Your task to perform on an android device: uninstall "Paramount+ | Peak Streaming" Image 0: 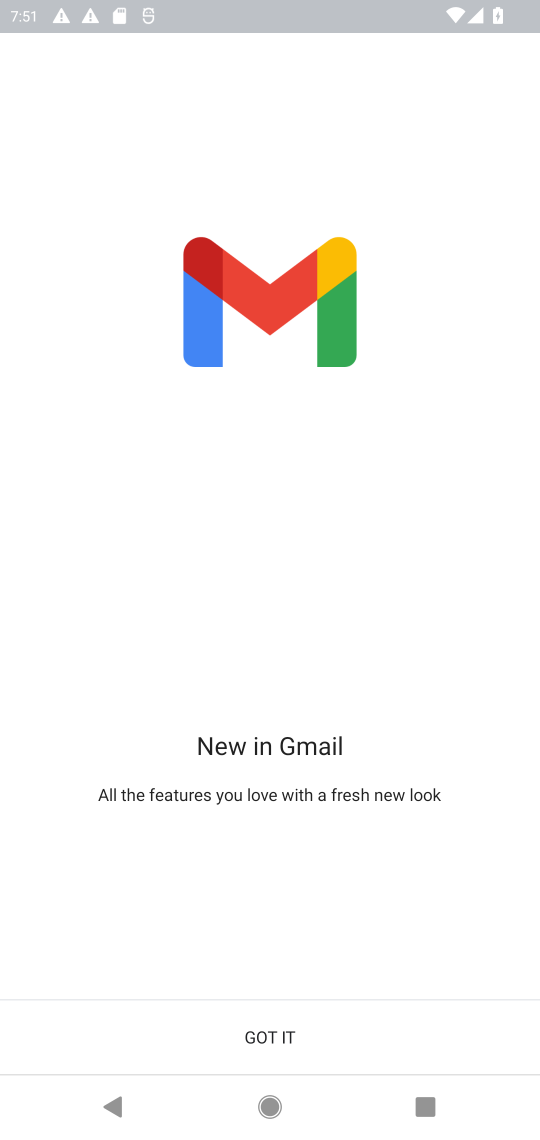
Step 0: press home button
Your task to perform on an android device: uninstall "Paramount+ | Peak Streaming" Image 1: 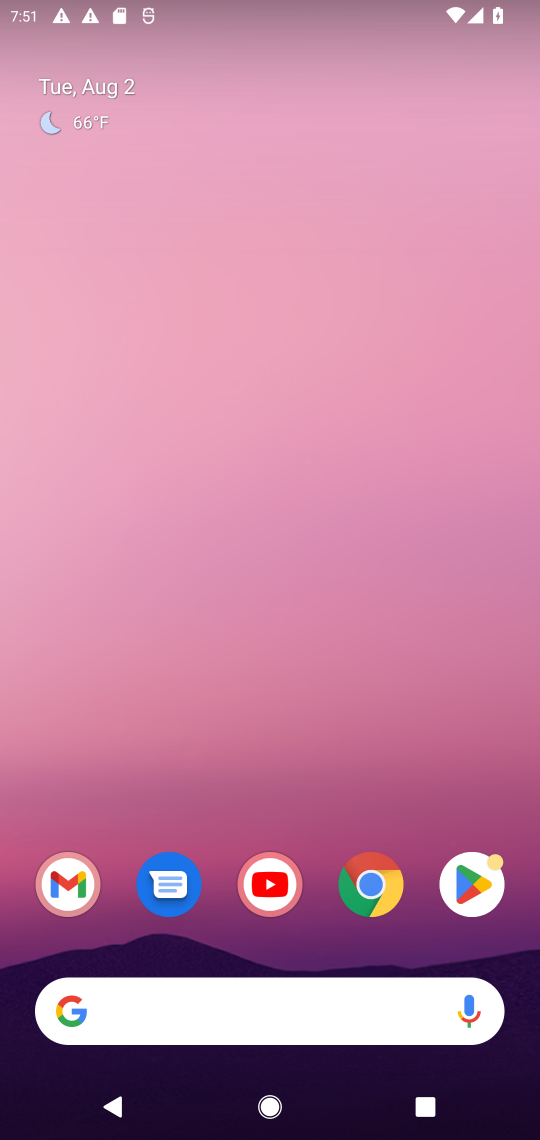
Step 1: click (473, 863)
Your task to perform on an android device: uninstall "Paramount+ | Peak Streaming" Image 2: 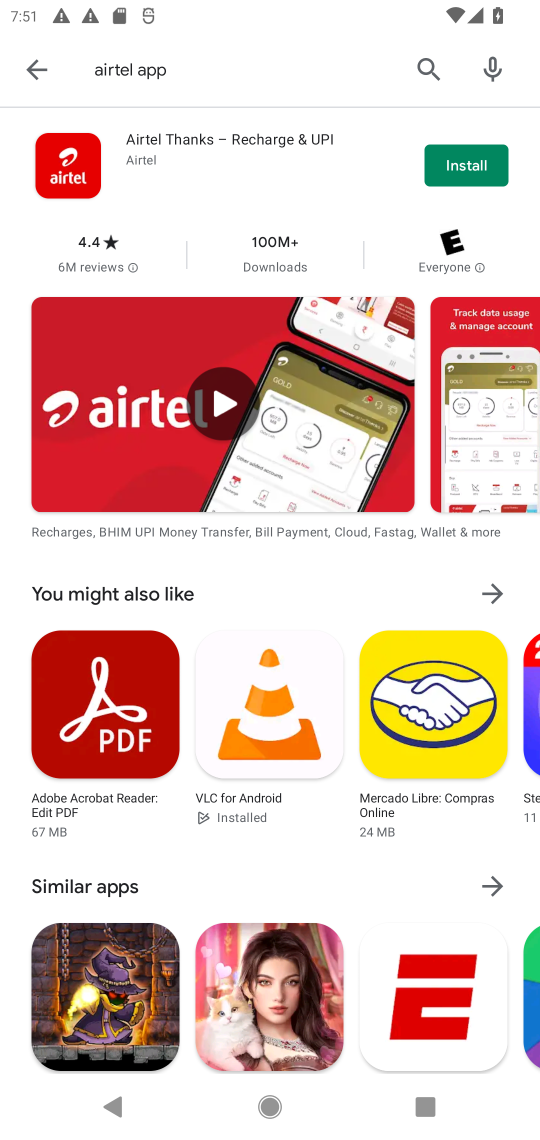
Step 2: click (412, 67)
Your task to perform on an android device: uninstall "Paramount+ | Peak Streaming" Image 3: 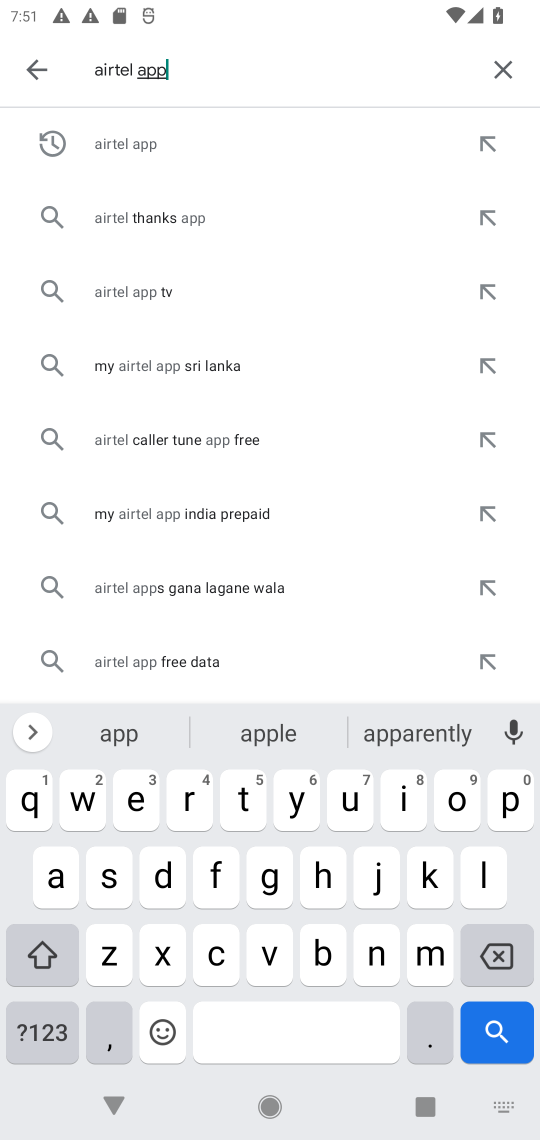
Step 3: click (500, 62)
Your task to perform on an android device: uninstall "Paramount+ | Peak Streaming" Image 4: 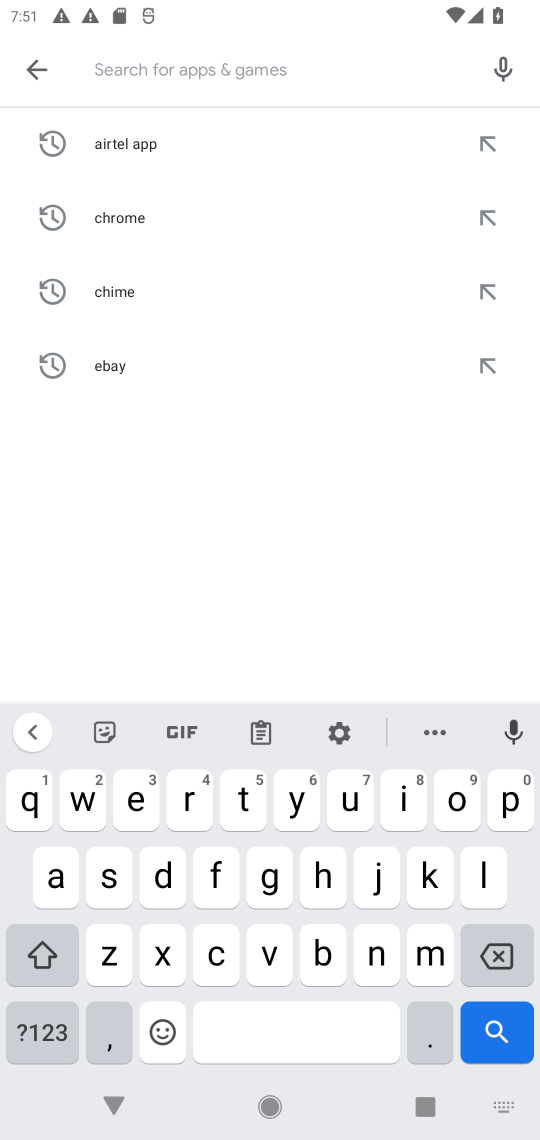
Step 4: click (504, 787)
Your task to perform on an android device: uninstall "Paramount+ | Peak Streaming" Image 5: 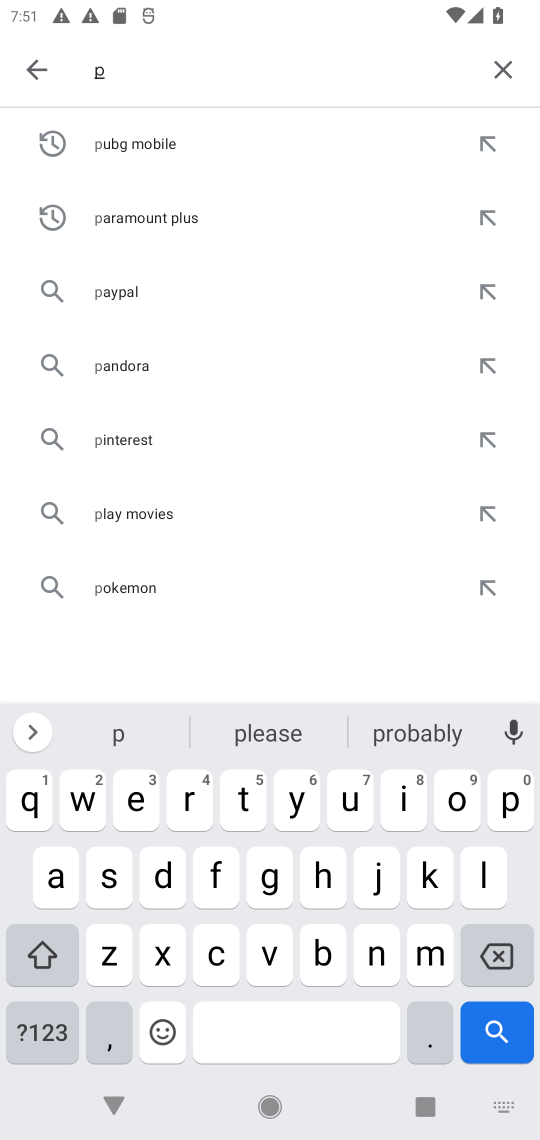
Step 5: click (47, 875)
Your task to perform on an android device: uninstall "Paramount+ | Peak Streaming" Image 6: 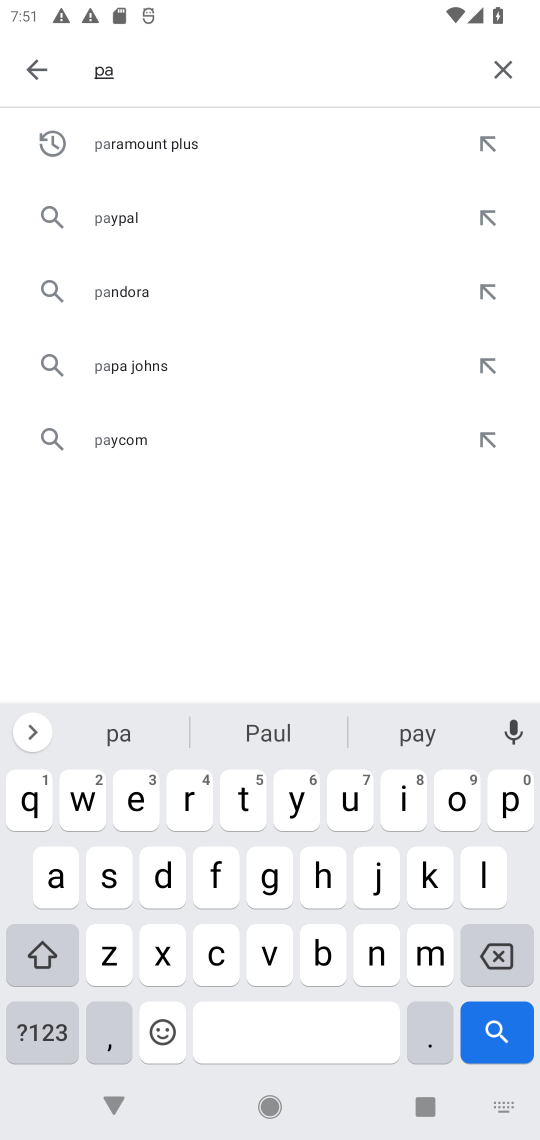
Step 6: click (178, 806)
Your task to perform on an android device: uninstall "Paramount+ | Peak Streaming" Image 7: 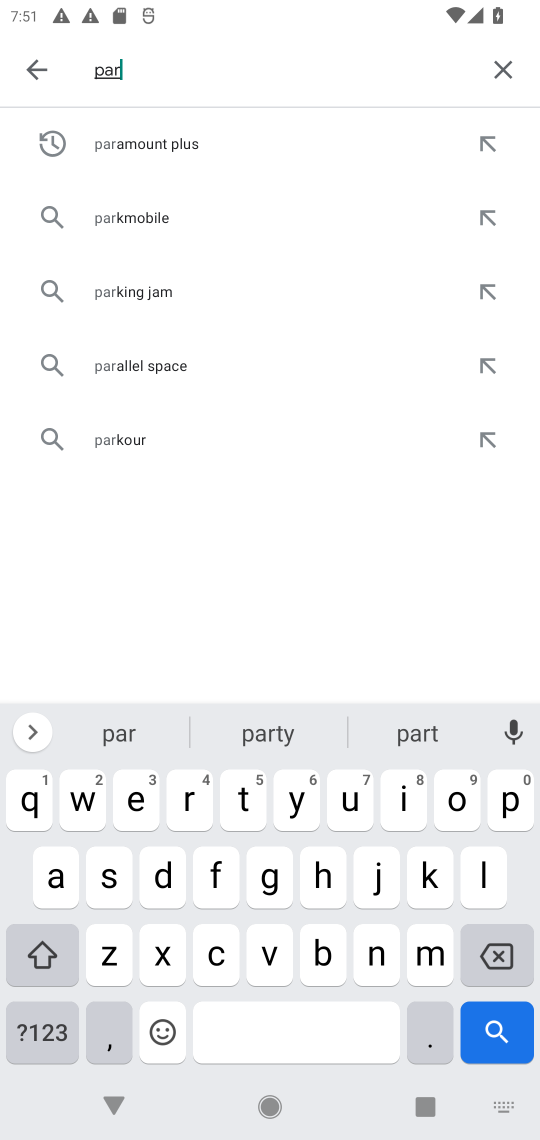
Step 7: click (183, 142)
Your task to perform on an android device: uninstall "Paramount+ | Peak Streaming" Image 8: 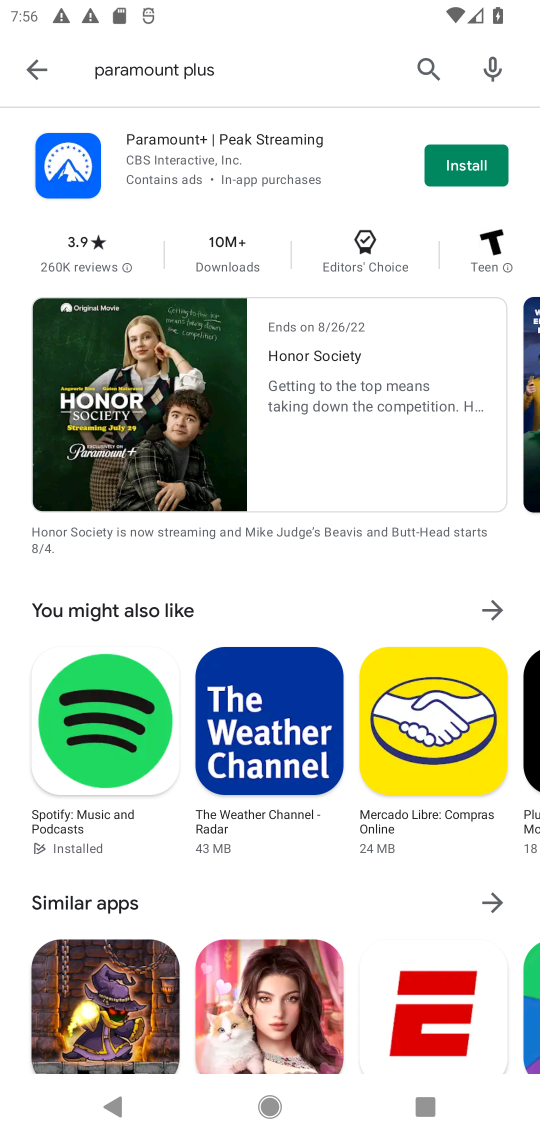
Step 8: task complete